Your task to perform on an android device: Open maps Image 0: 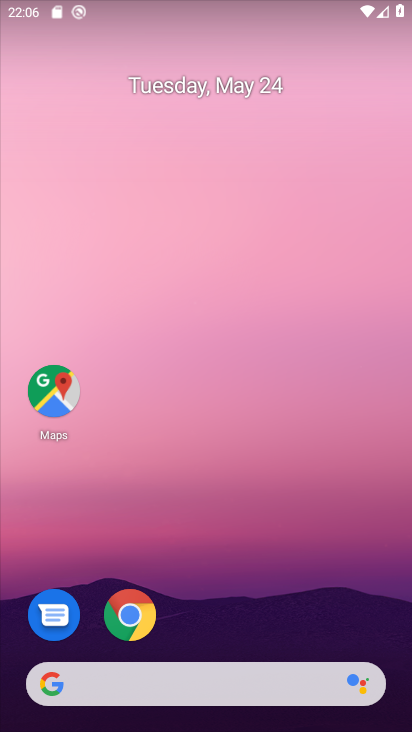
Step 0: click (221, 370)
Your task to perform on an android device: Open maps Image 1: 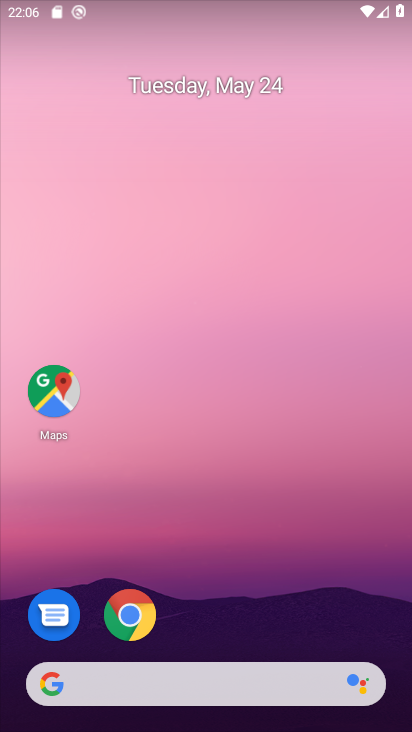
Step 1: click (54, 383)
Your task to perform on an android device: Open maps Image 2: 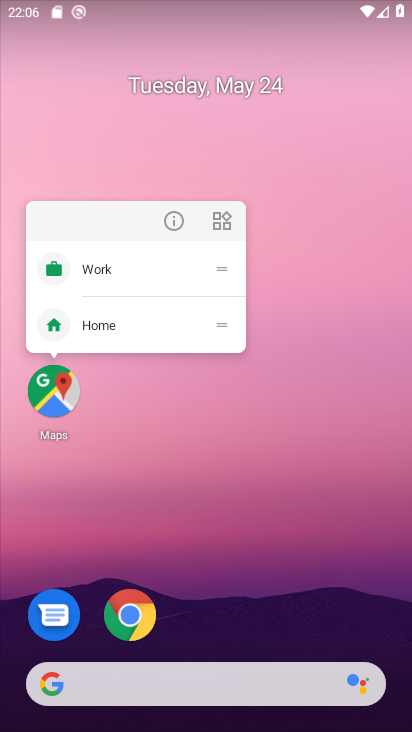
Step 2: click (35, 390)
Your task to perform on an android device: Open maps Image 3: 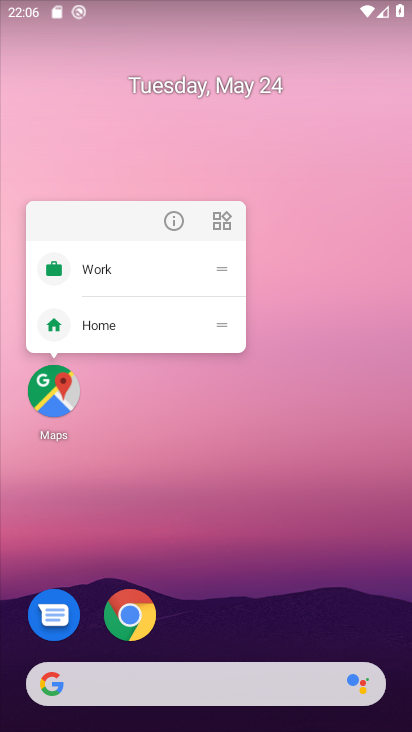
Step 3: click (41, 389)
Your task to perform on an android device: Open maps Image 4: 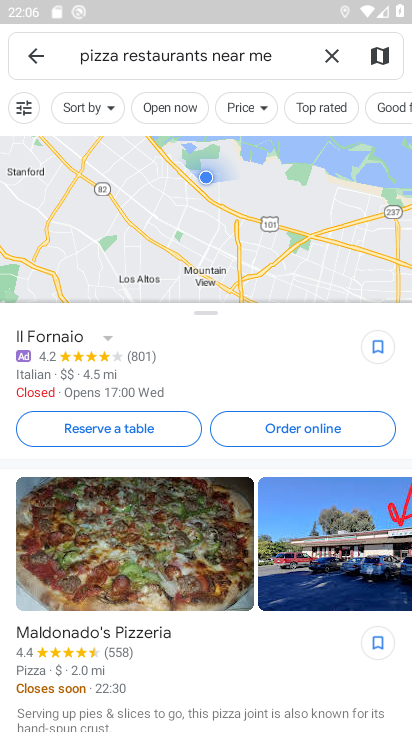
Step 4: task complete